Your task to perform on an android device: turn vacation reply on in the gmail app Image 0: 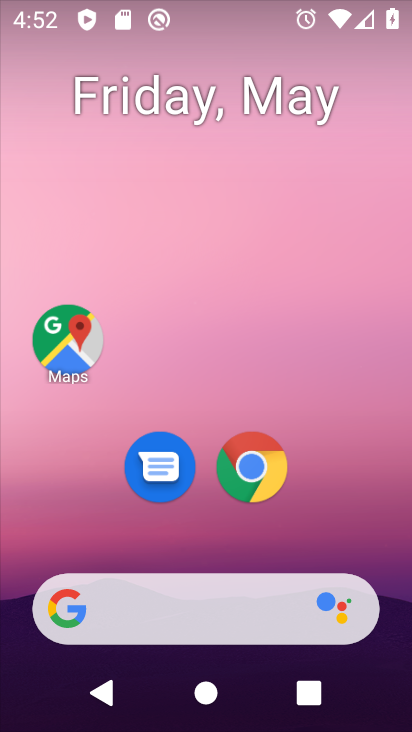
Step 0: drag from (322, 492) to (369, 93)
Your task to perform on an android device: turn vacation reply on in the gmail app Image 1: 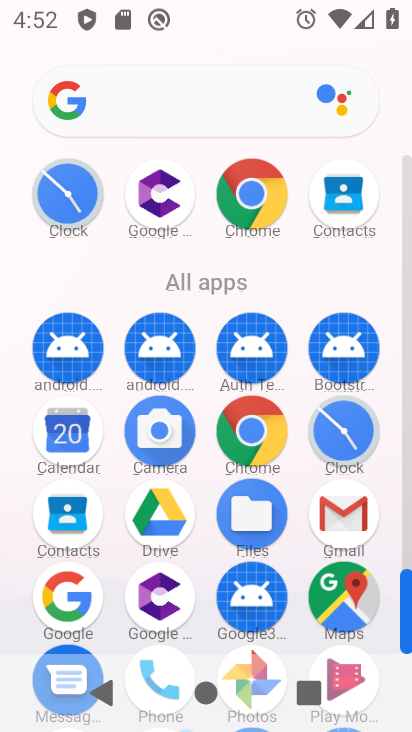
Step 1: click (350, 522)
Your task to perform on an android device: turn vacation reply on in the gmail app Image 2: 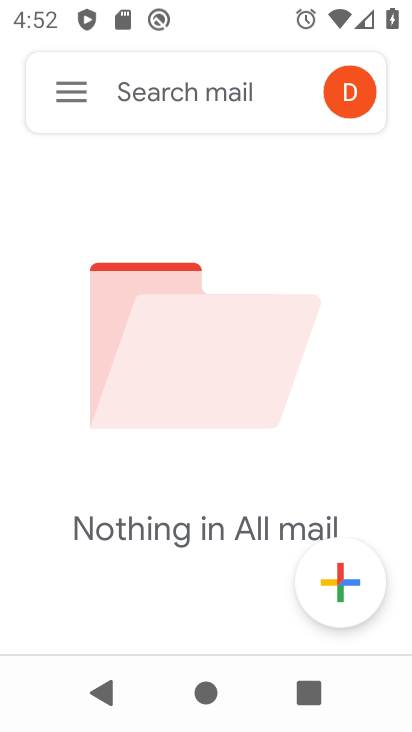
Step 2: click (63, 78)
Your task to perform on an android device: turn vacation reply on in the gmail app Image 3: 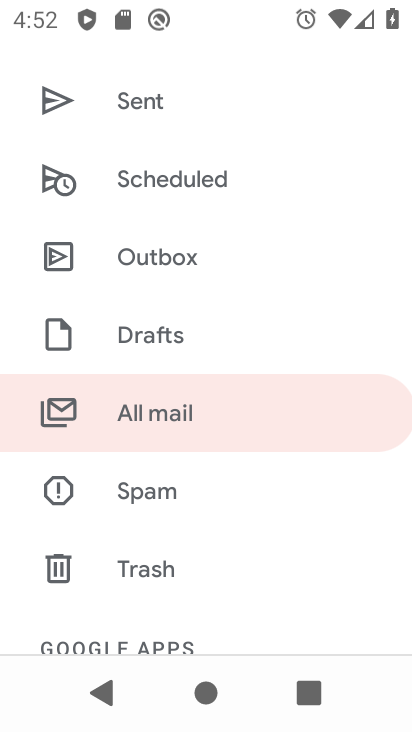
Step 3: drag from (183, 556) to (299, 144)
Your task to perform on an android device: turn vacation reply on in the gmail app Image 4: 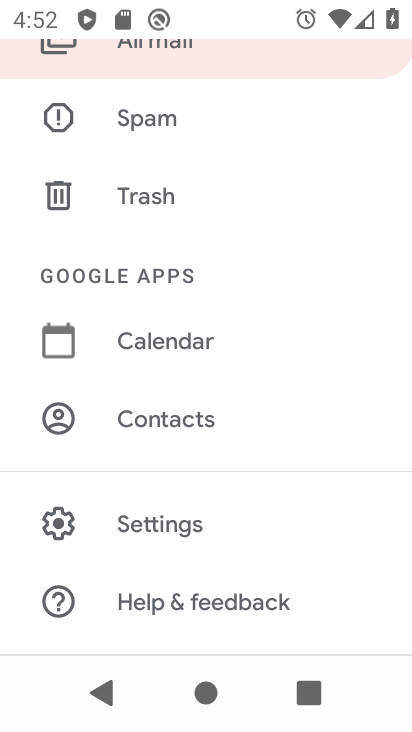
Step 4: click (189, 535)
Your task to perform on an android device: turn vacation reply on in the gmail app Image 5: 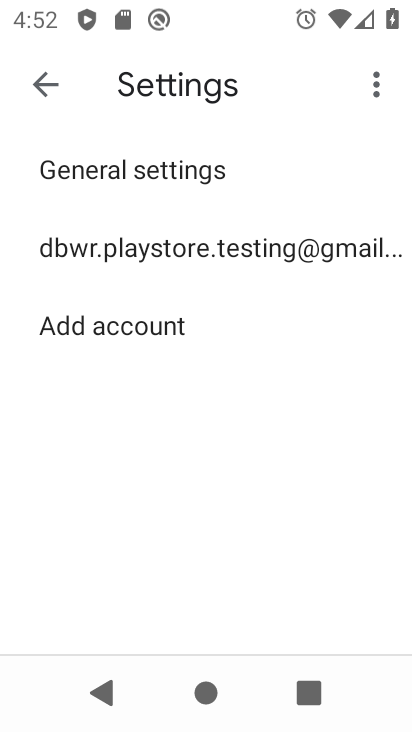
Step 5: click (226, 260)
Your task to perform on an android device: turn vacation reply on in the gmail app Image 6: 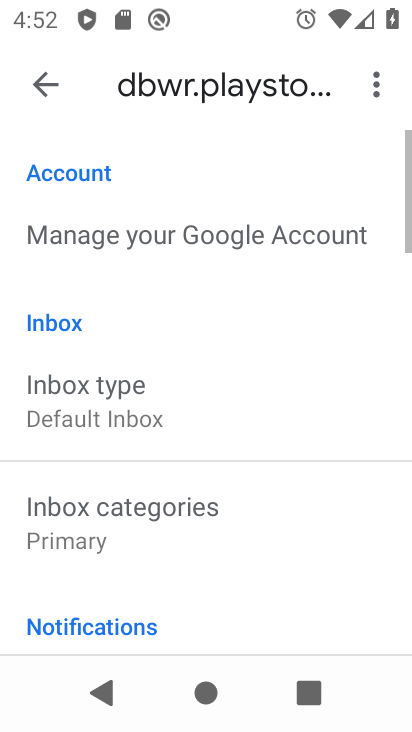
Step 6: drag from (208, 508) to (237, 349)
Your task to perform on an android device: turn vacation reply on in the gmail app Image 7: 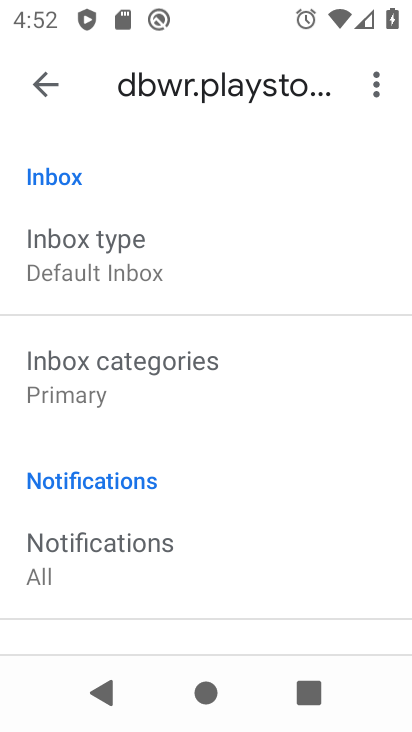
Step 7: drag from (109, 537) to (258, 138)
Your task to perform on an android device: turn vacation reply on in the gmail app Image 8: 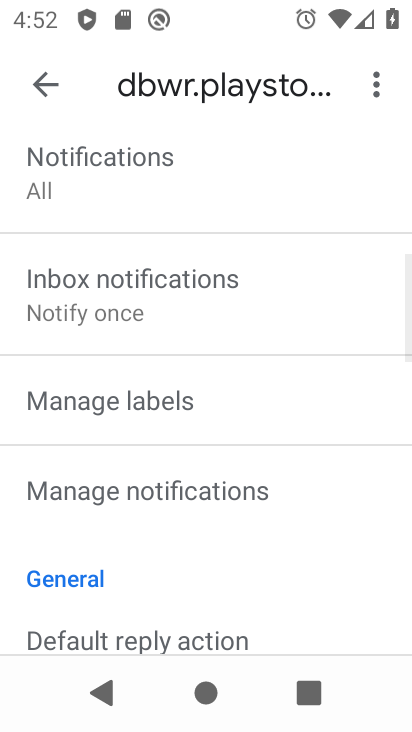
Step 8: drag from (164, 540) to (306, 213)
Your task to perform on an android device: turn vacation reply on in the gmail app Image 9: 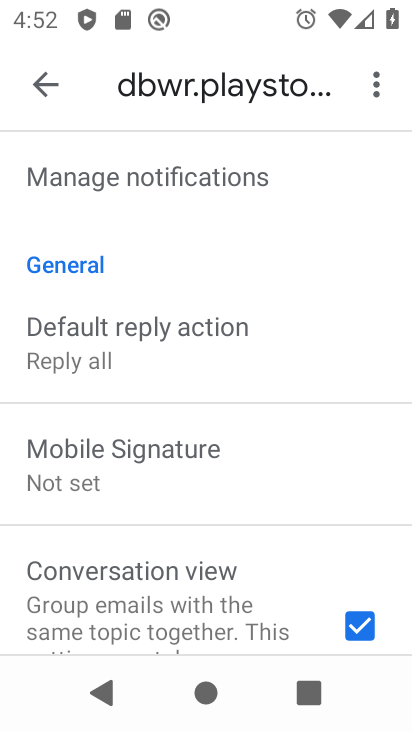
Step 9: drag from (197, 484) to (307, 176)
Your task to perform on an android device: turn vacation reply on in the gmail app Image 10: 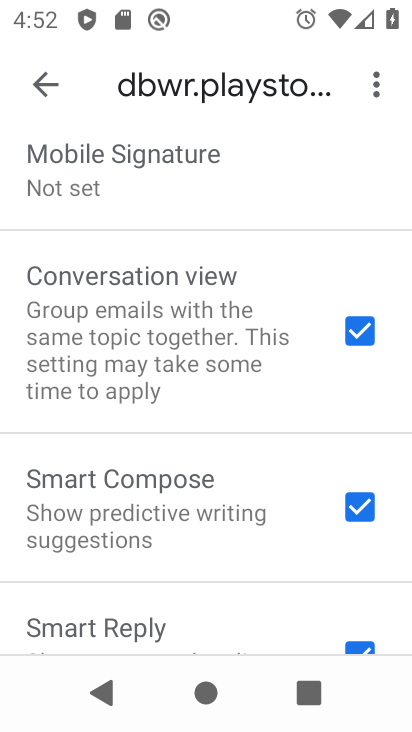
Step 10: drag from (160, 604) to (262, 272)
Your task to perform on an android device: turn vacation reply on in the gmail app Image 11: 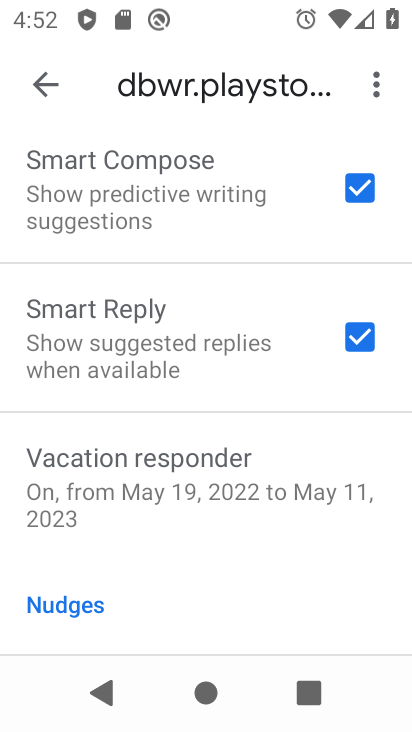
Step 11: click (157, 467)
Your task to perform on an android device: turn vacation reply on in the gmail app Image 12: 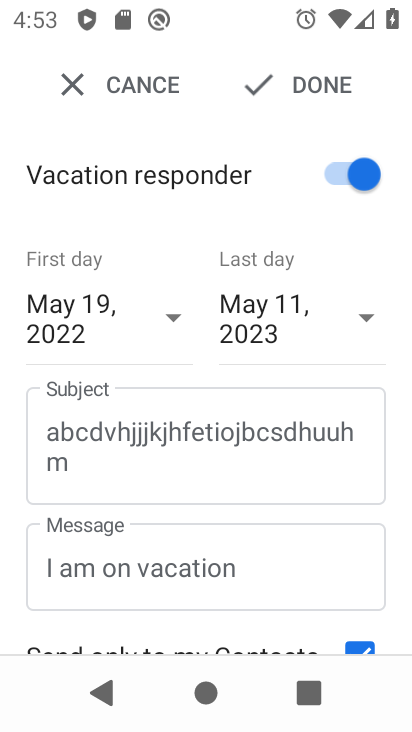
Step 12: task complete